Your task to perform on an android device: Search for the best rated electric lawnmower on Home Depot Image 0: 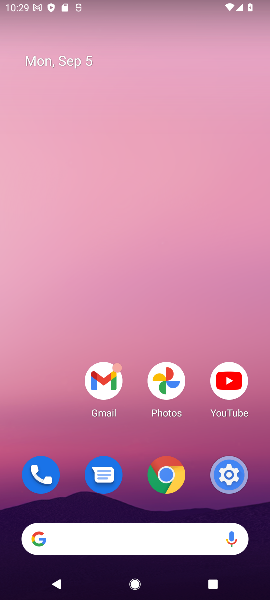
Step 0: click (129, 167)
Your task to perform on an android device: Search for the best rated electric lawnmower on Home Depot Image 1: 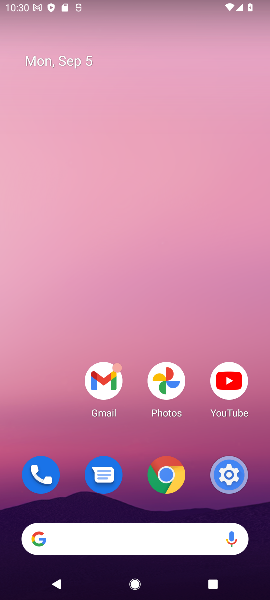
Step 1: click (103, 538)
Your task to perform on an android device: Search for the best rated electric lawnmower on Home Depot Image 2: 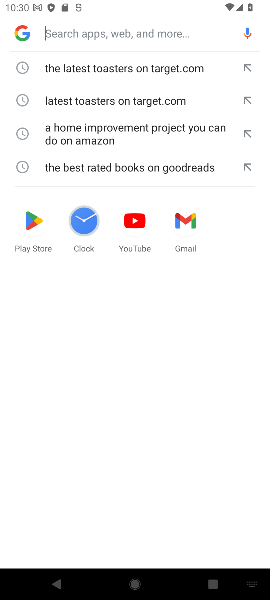
Step 2: type "the best rated electric lawnmower on Home Depot"
Your task to perform on an android device: Search for the best rated electric lawnmower on Home Depot Image 3: 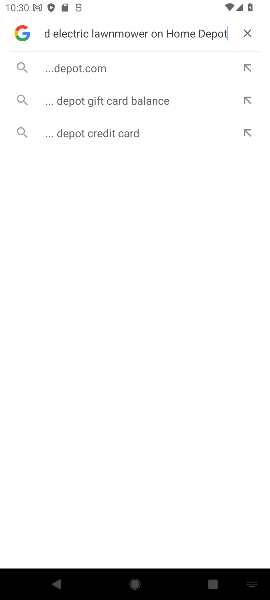
Step 3: click (107, 67)
Your task to perform on an android device: Search for the best rated electric lawnmower on Home Depot Image 4: 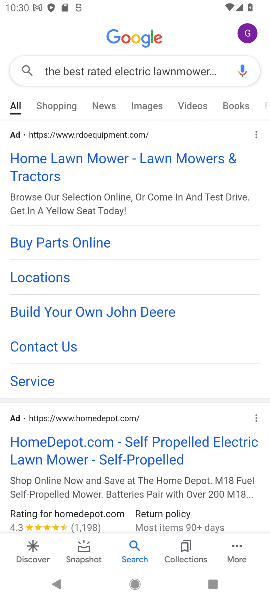
Step 4: task complete